Your task to perform on an android device: open device folders in google photos Image 0: 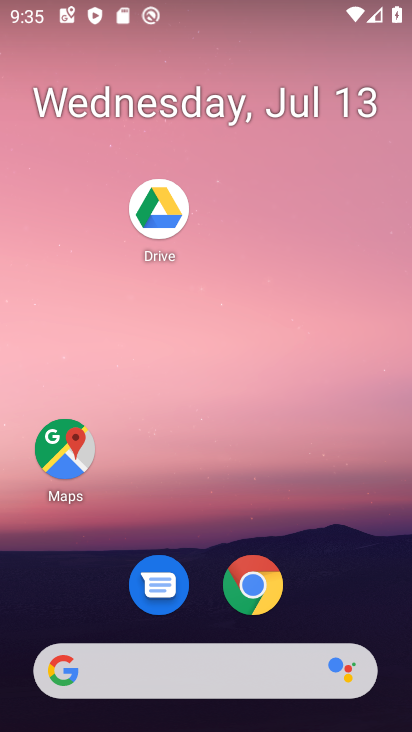
Step 0: drag from (161, 665) to (308, 181)
Your task to perform on an android device: open device folders in google photos Image 1: 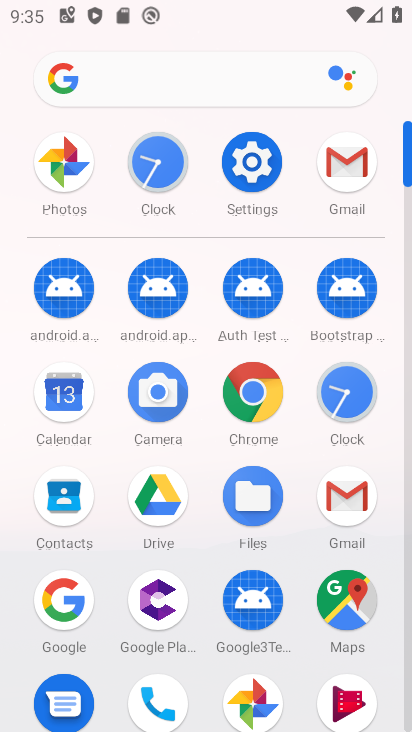
Step 1: click (246, 690)
Your task to perform on an android device: open device folders in google photos Image 2: 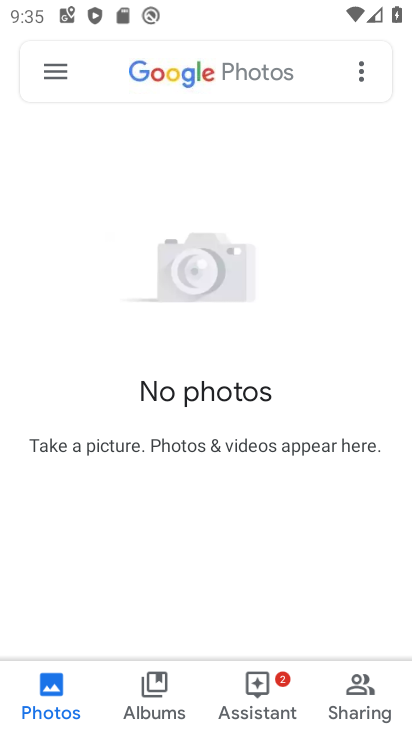
Step 2: click (63, 68)
Your task to perform on an android device: open device folders in google photos Image 3: 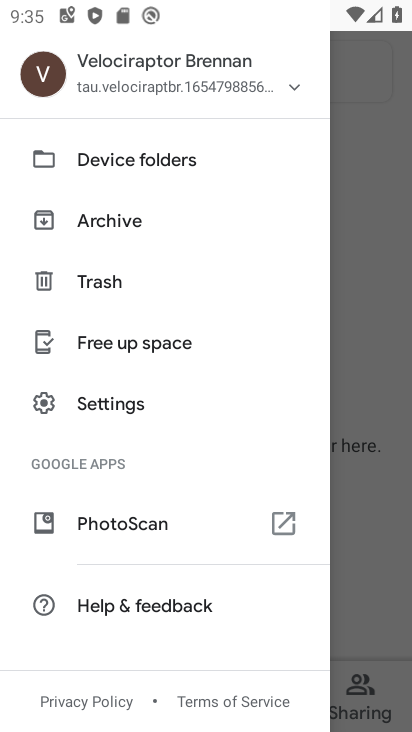
Step 3: click (101, 159)
Your task to perform on an android device: open device folders in google photos Image 4: 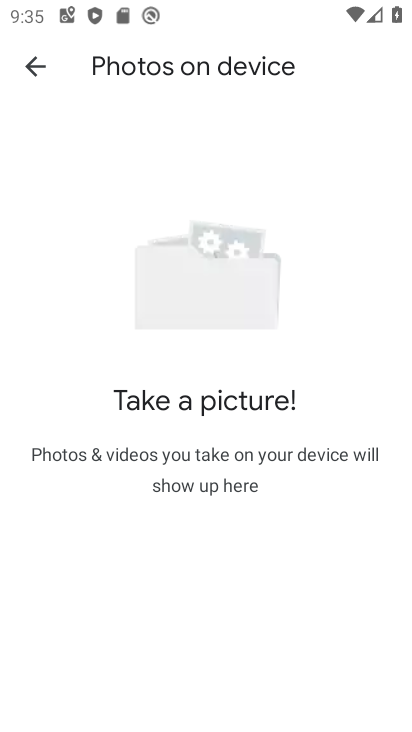
Step 4: task complete